Your task to perform on an android device: manage bookmarks in the chrome app Image 0: 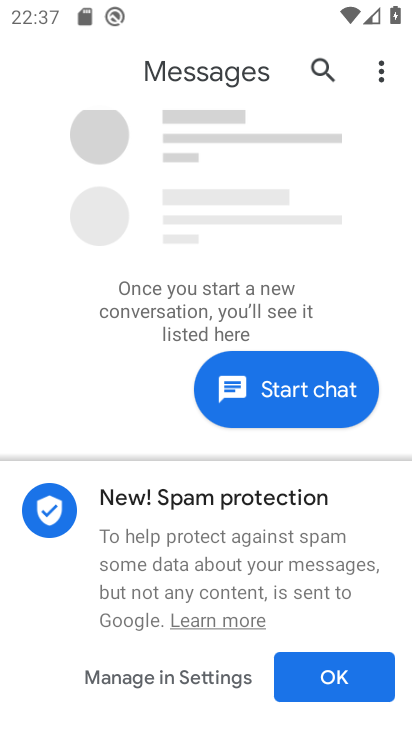
Step 0: press home button
Your task to perform on an android device: manage bookmarks in the chrome app Image 1: 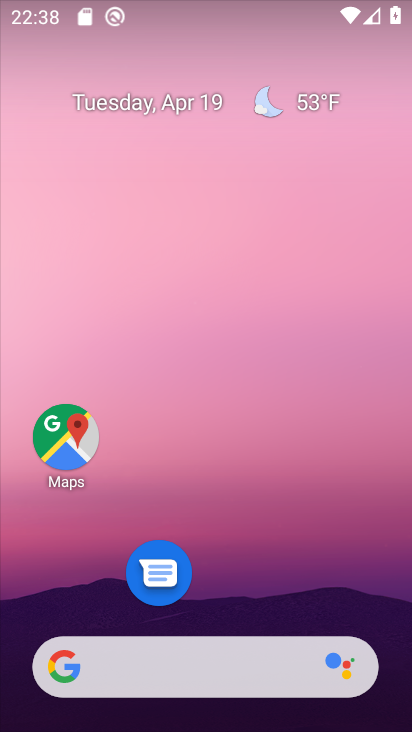
Step 1: drag from (224, 480) to (36, 0)
Your task to perform on an android device: manage bookmarks in the chrome app Image 2: 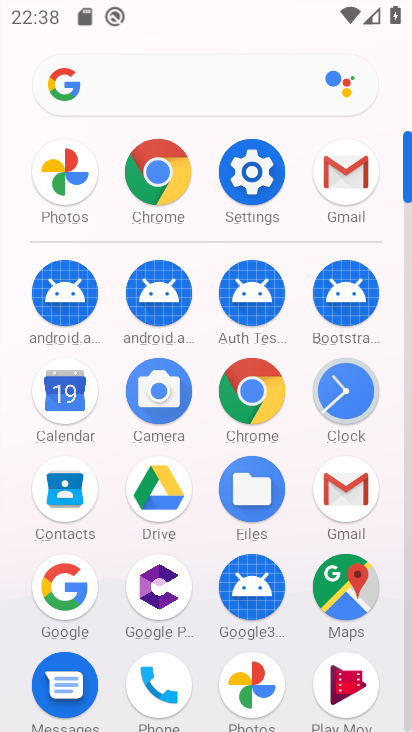
Step 2: click (159, 168)
Your task to perform on an android device: manage bookmarks in the chrome app Image 3: 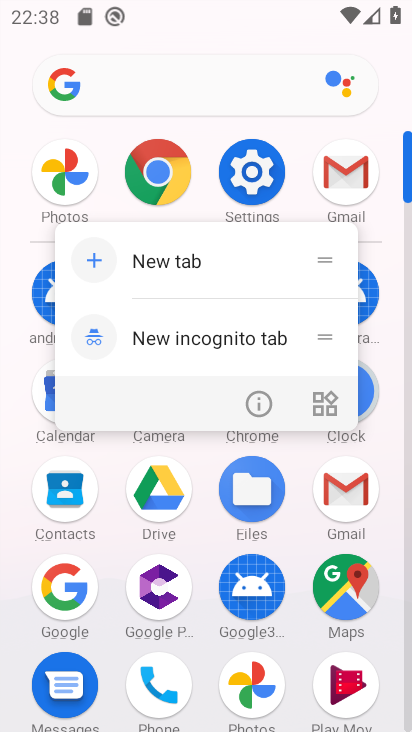
Step 3: click (156, 169)
Your task to perform on an android device: manage bookmarks in the chrome app Image 4: 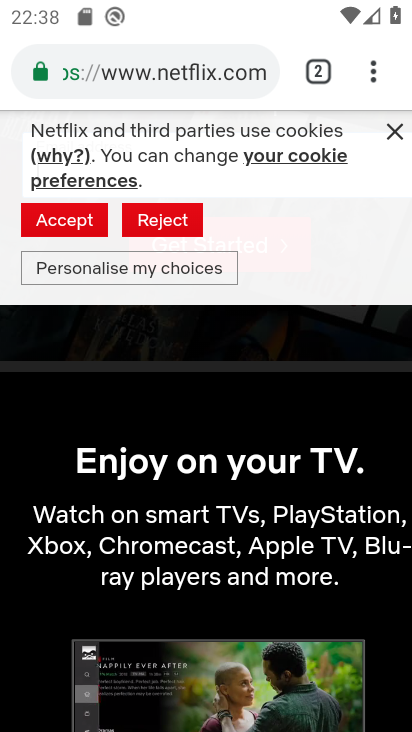
Step 4: click (373, 68)
Your task to perform on an android device: manage bookmarks in the chrome app Image 5: 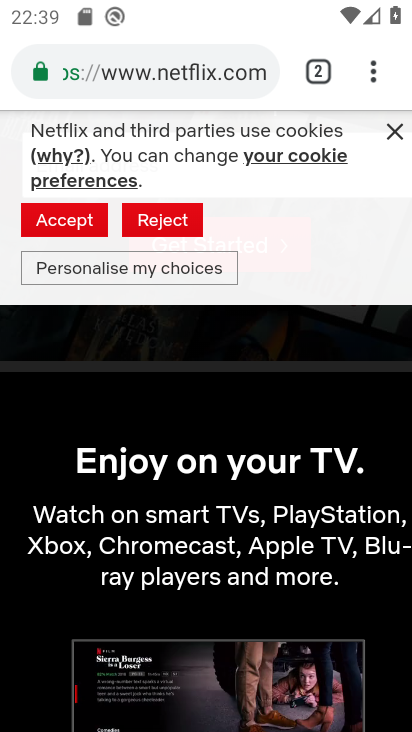
Step 5: click (370, 70)
Your task to perform on an android device: manage bookmarks in the chrome app Image 6: 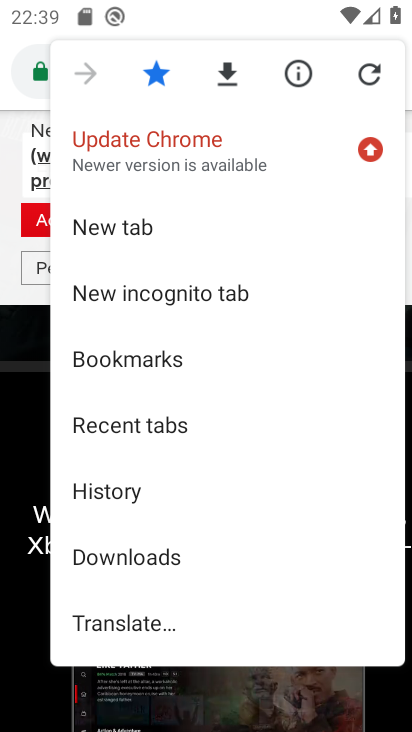
Step 6: click (186, 351)
Your task to perform on an android device: manage bookmarks in the chrome app Image 7: 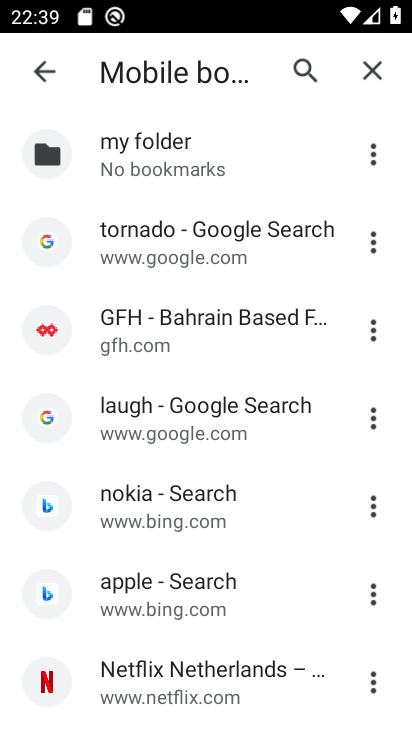
Step 7: click (369, 504)
Your task to perform on an android device: manage bookmarks in the chrome app Image 8: 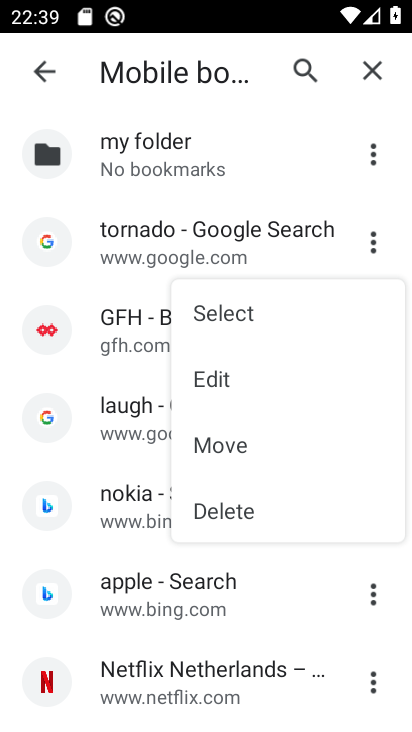
Step 8: click (264, 507)
Your task to perform on an android device: manage bookmarks in the chrome app Image 9: 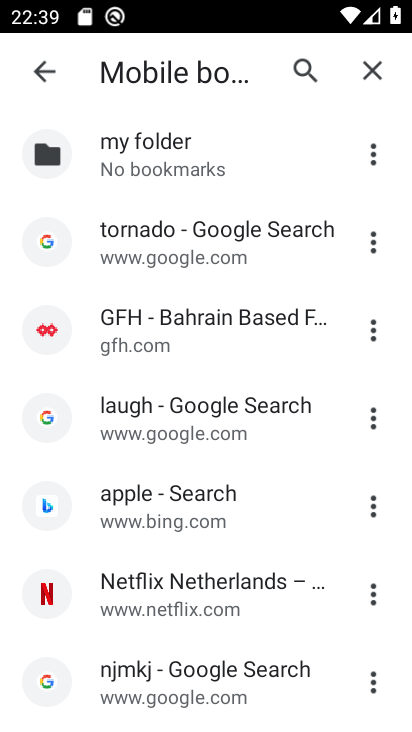
Step 9: task complete